Your task to perform on an android device: turn off wifi Image 0: 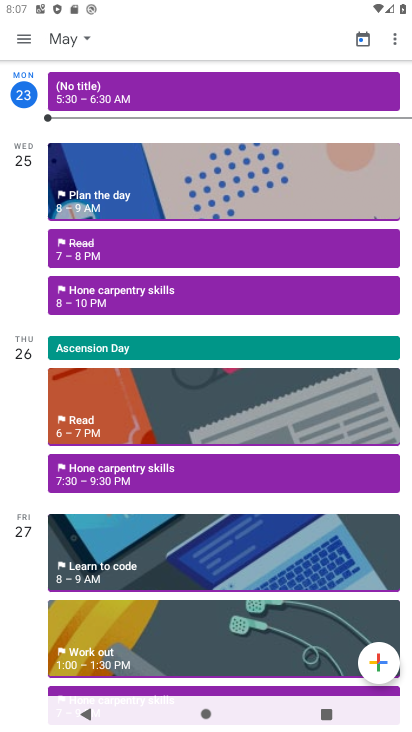
Step 0: press home button
Your task to perform on an android device: turn off wifi Image 1: 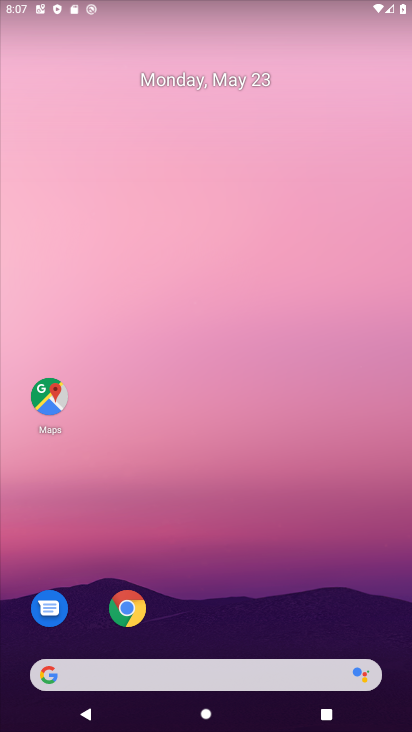
Step 1: drag from (213, 668) to (218, 254)
Your task to perform on an android device: turn off wifi Image 2: 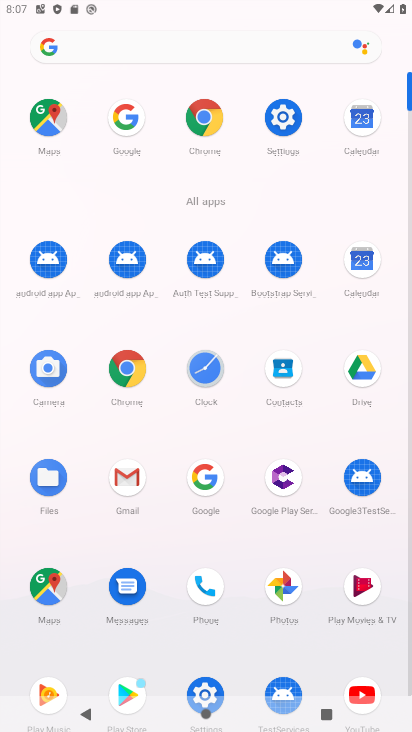
Step 2: click (273, 120)
Your task to perform on an android device: turn off wifi Image 3: 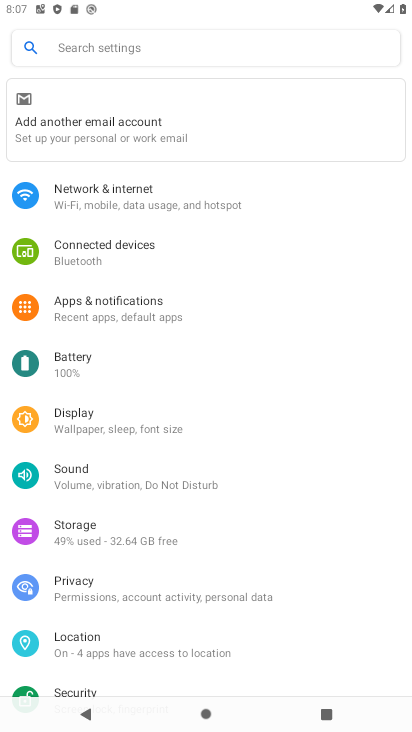
Step 3: click (161, 191)
Your task to perform on an android device: turn off wifi Image 4: 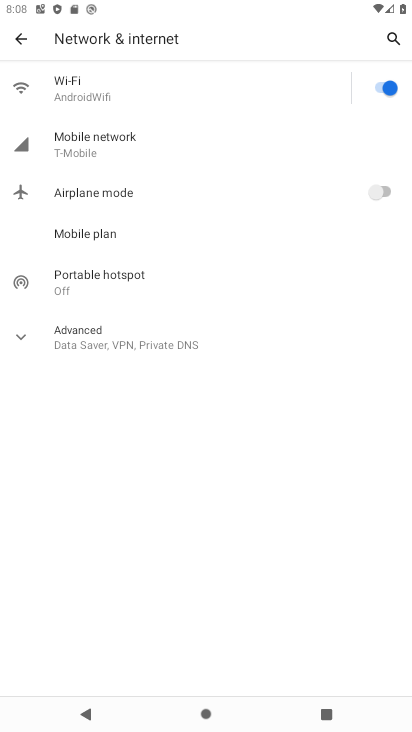
Step 4: click (383, 89)
Your task to perform on an android device: turn off wifi Image 5: 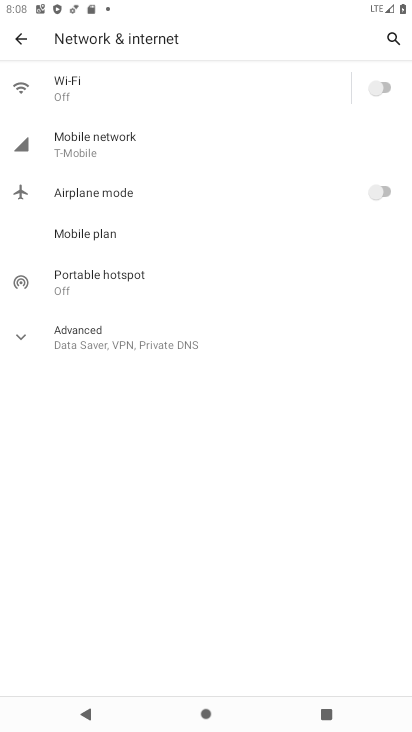
Step 5: task complete